Your task to perform on an android device: Open location settings Image 0: 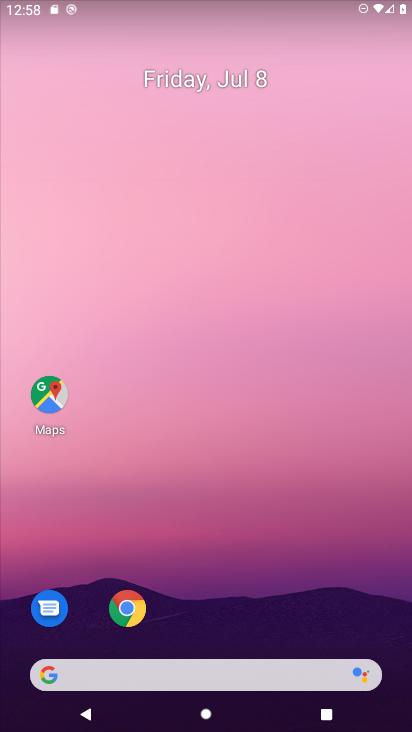
Step 0: drag from (290, 622) to (307, 213)
Your task to perform on an android device: Open location settings Image 1: 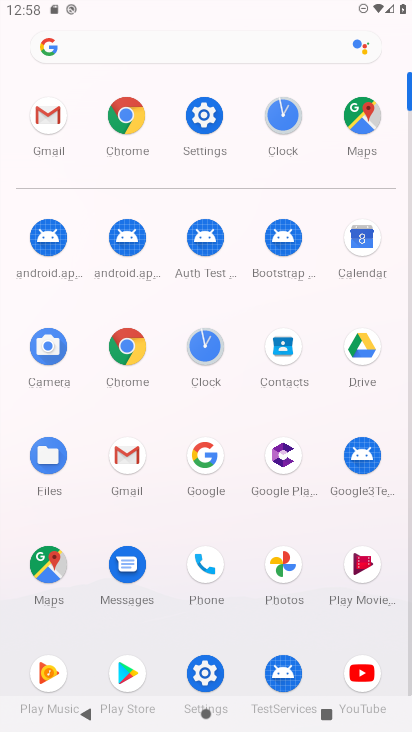
Step 1: click (199, 159)
Your task to perform on an android device: Open location settings Image 2: 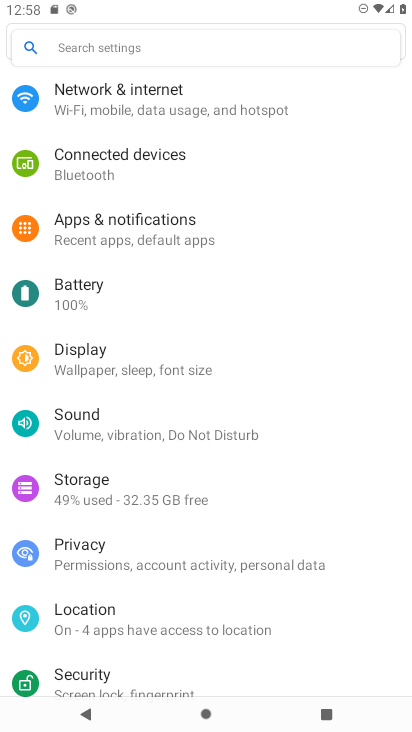
Step 2: click (149, 615)
Your task to perform on an android device: Open location settings Image 3: 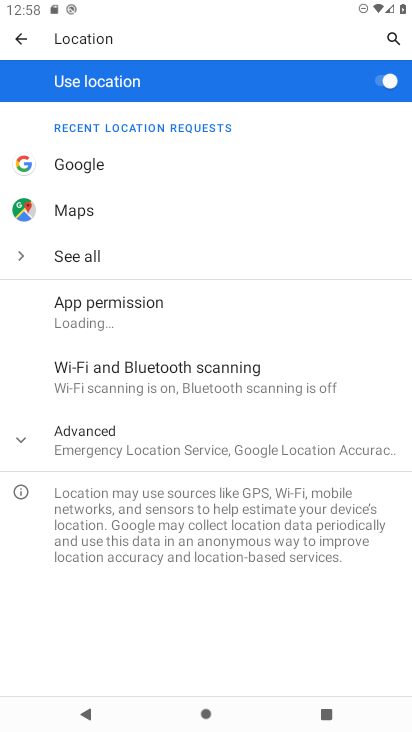
Step 3: task complete